Your task to perform on an android device: Do I have any events today? Image 0: 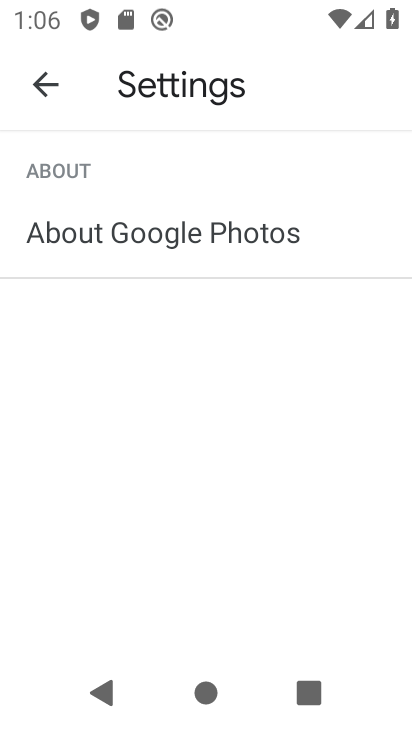
Step 0: press home button
Your task to perform on an android device: Do I have any events today? Image 1: 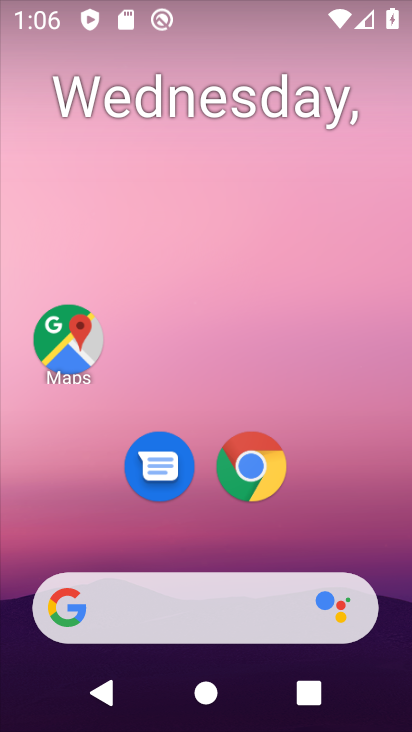
Step 1: drag from (266, 678) to (249, 76)
Your task to perform on an android device: Do I have any events today? Image 2: 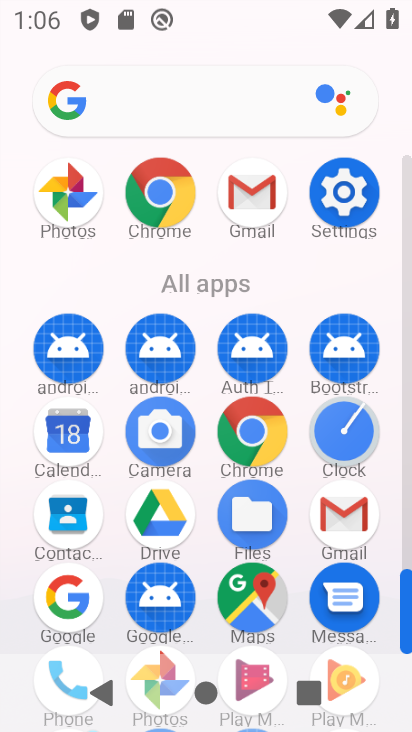
Step 2: click (63, 412)
Your task to perform on an android device: Do I have any events today? Image 3: 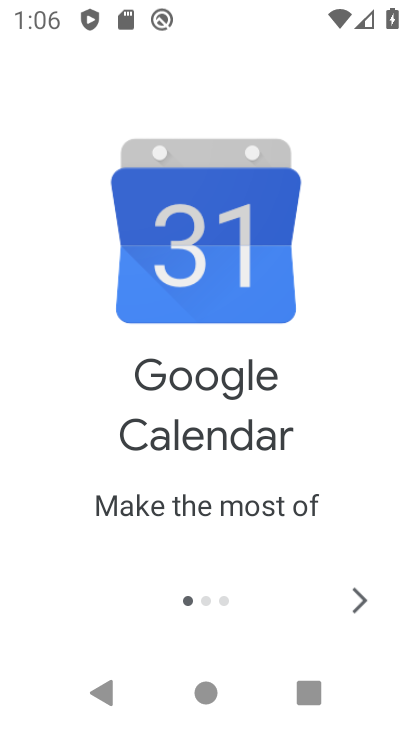
Step 3: click (371, 600)
Your task to perform on an android device: Do I have any events today? Image 4: 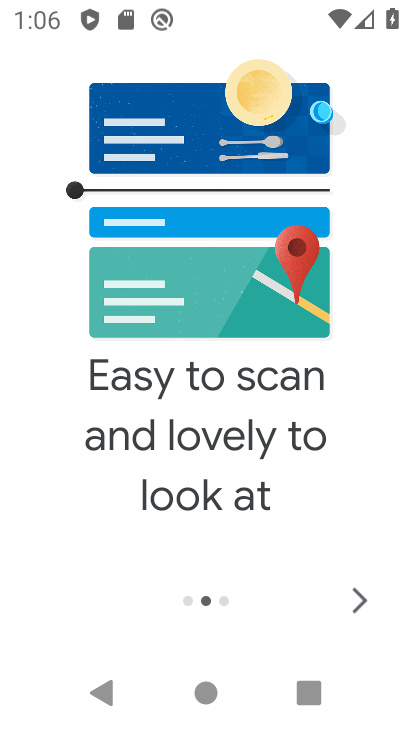
Step 4: click (353, 591)
Your task to perform on an android device: Do I have any events today? Image 5: 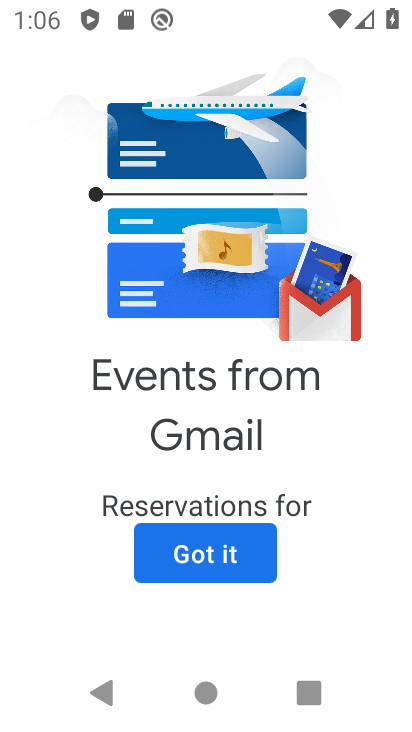
Step 5: click (236, 563)
Your task to perform on an android device: Do I have any events today? Image 6: 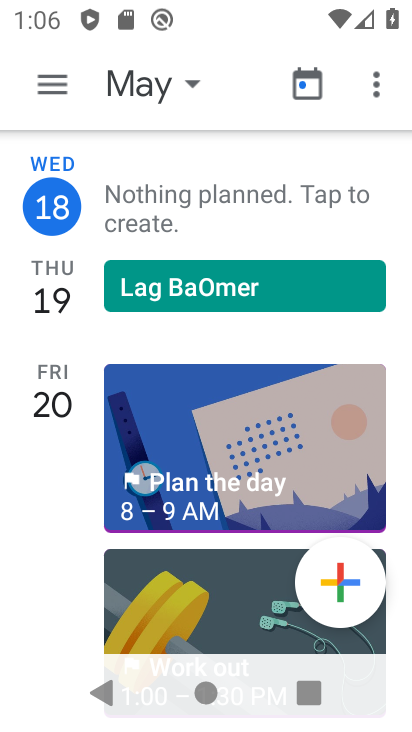
Step 6: click (145, 54)
Your task to perform on an android device: Do I have any events today? Image 7: 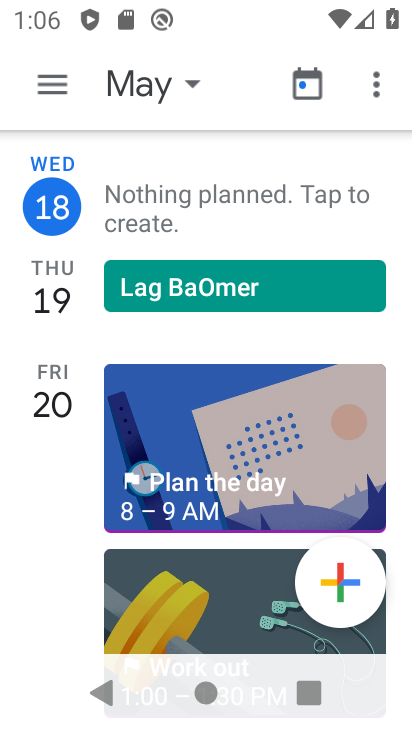
Step 7: click (159, 69)
Your task to perform on an android device: Do I have any events today? Image 8: 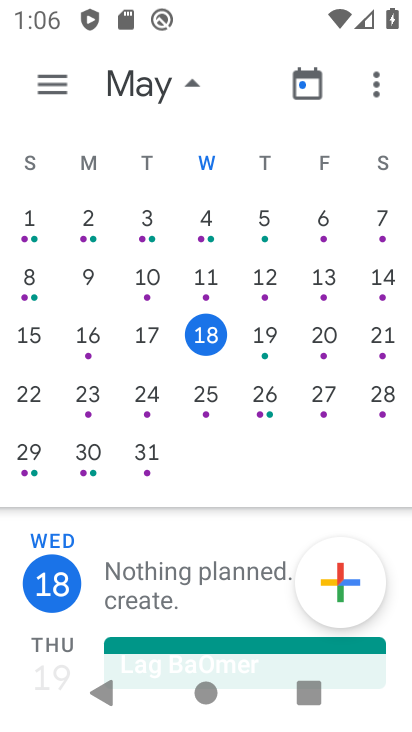
Step 8: click (194, 330)
Your task to perform on an android device: Do I have any events today? Image 9: 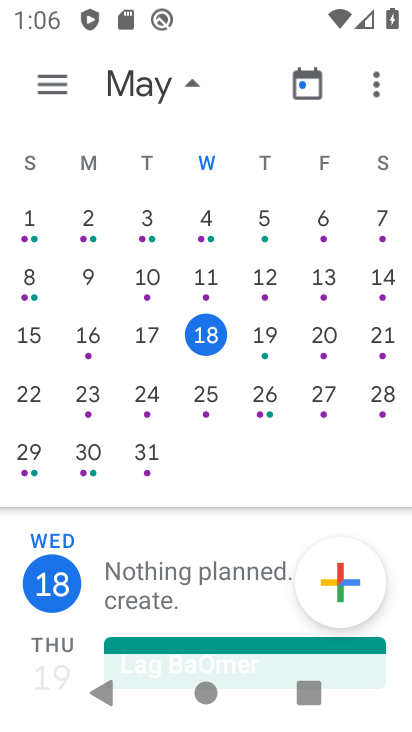
Step 9: click (197, 330)
Your task to perform on an android device: Do I have any events today? Image 10: 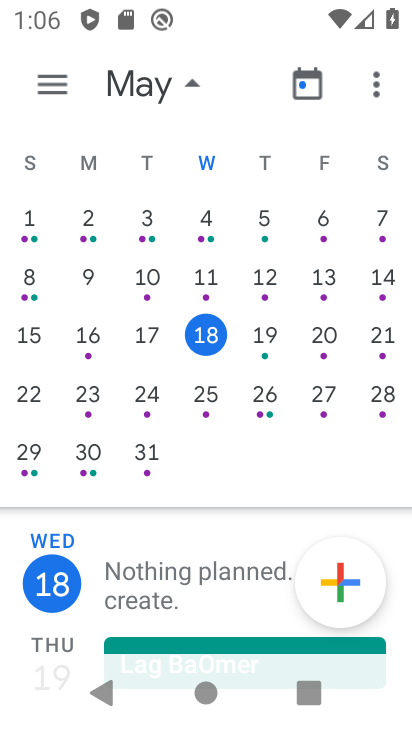
Step 10: task complete